Your task to perform on an android device: What's the latest news in cosmology? Image 0: 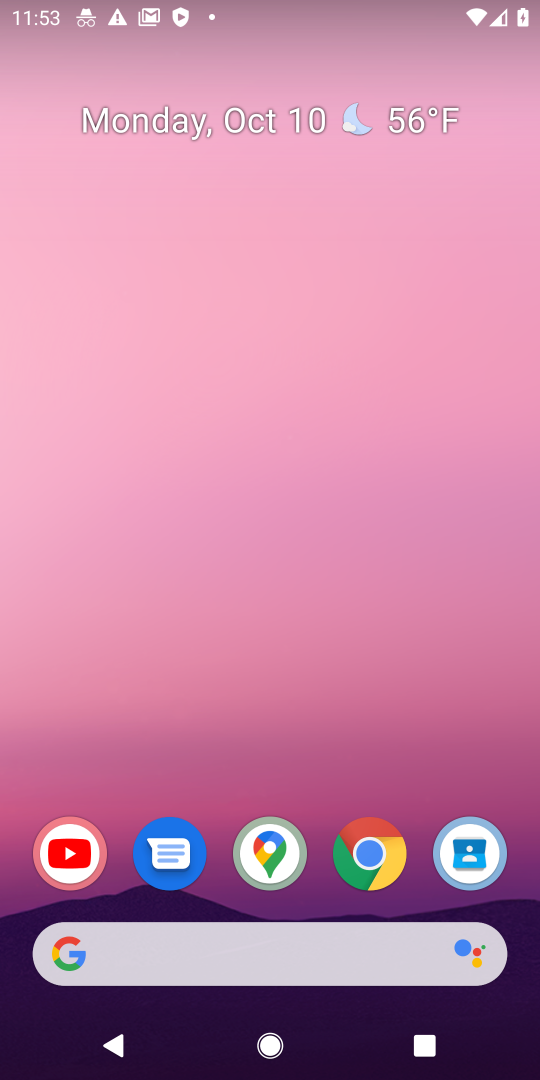
Step 0: click (149, 946)
Your task to perform on an android device: What's the latest news in cosmology? Image 1: 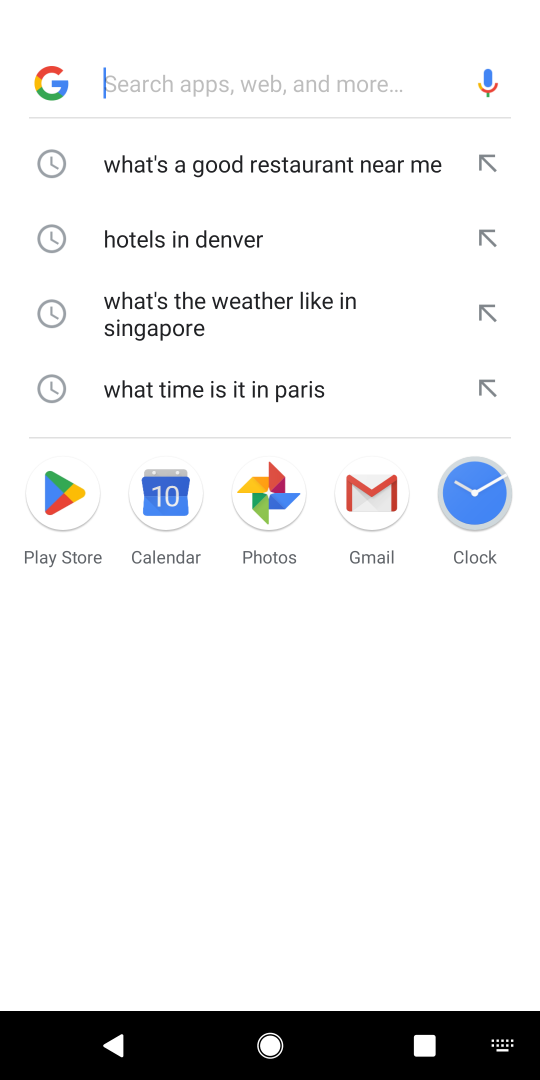
Step 1: type "What's the latest news in cosmology?"
Your task to perform on an android device: What's the latest news in cosmology? Image 2: 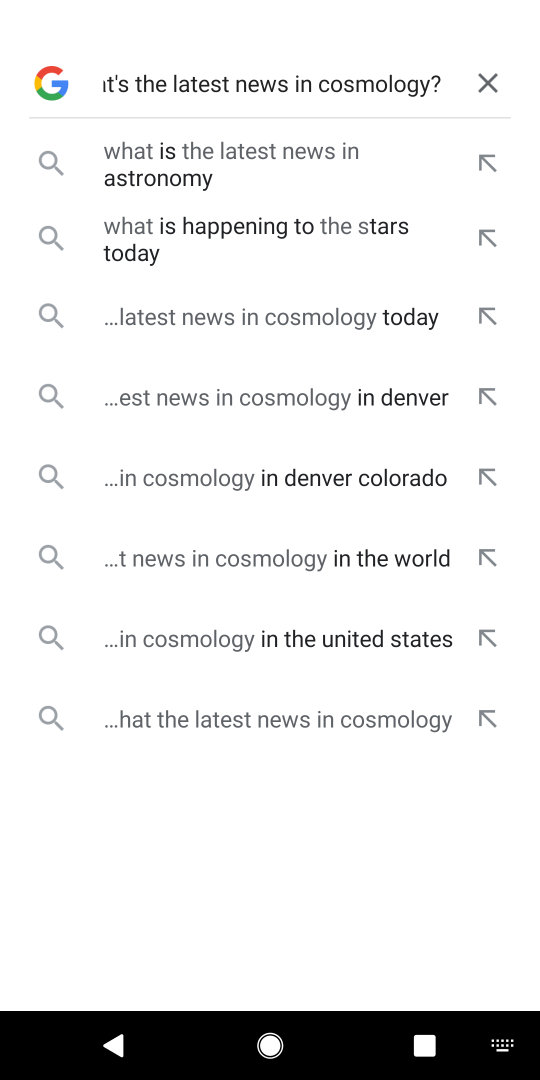
Step 2: press enter
Your task to perform on an android device: What's the latest news in cosmology? Image 3: 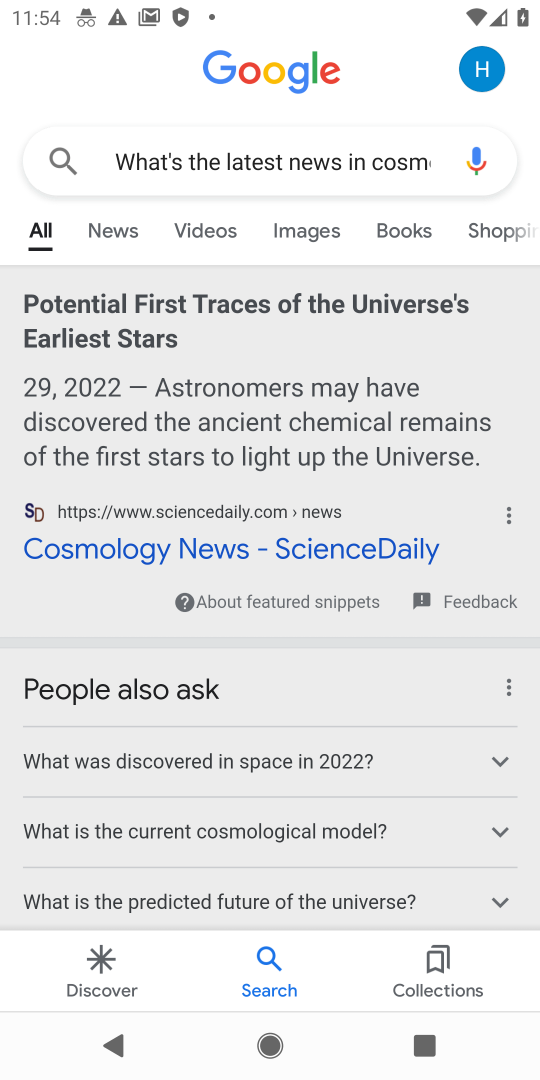
Step 3: click (178, 550)
Your task to perform on an android device: What's the latest news in cosmology? Image 4: 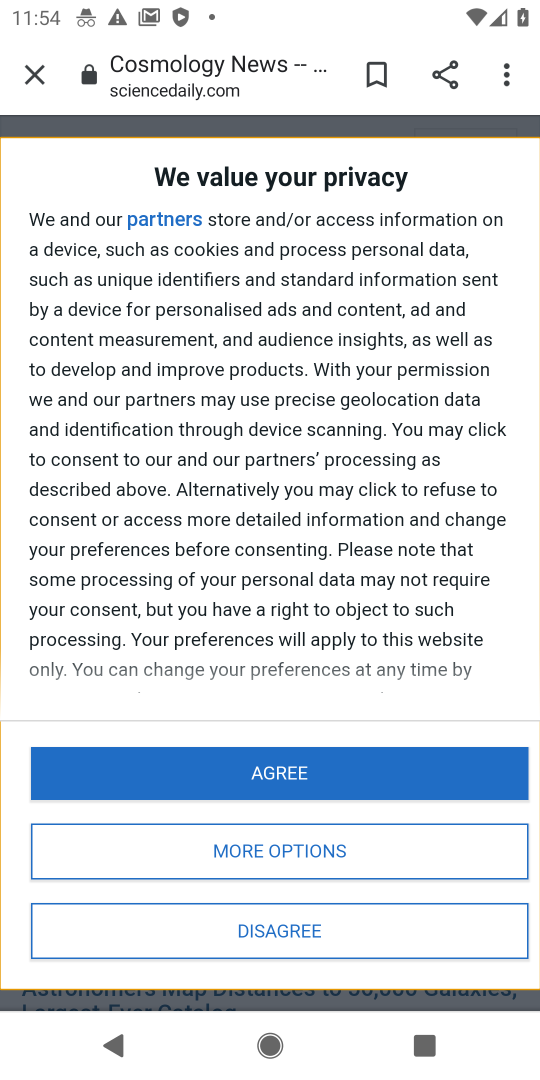
Step 4: click (365, 782)
Your task to perform on an android device: What's the latest news in cosmology? Image 5: 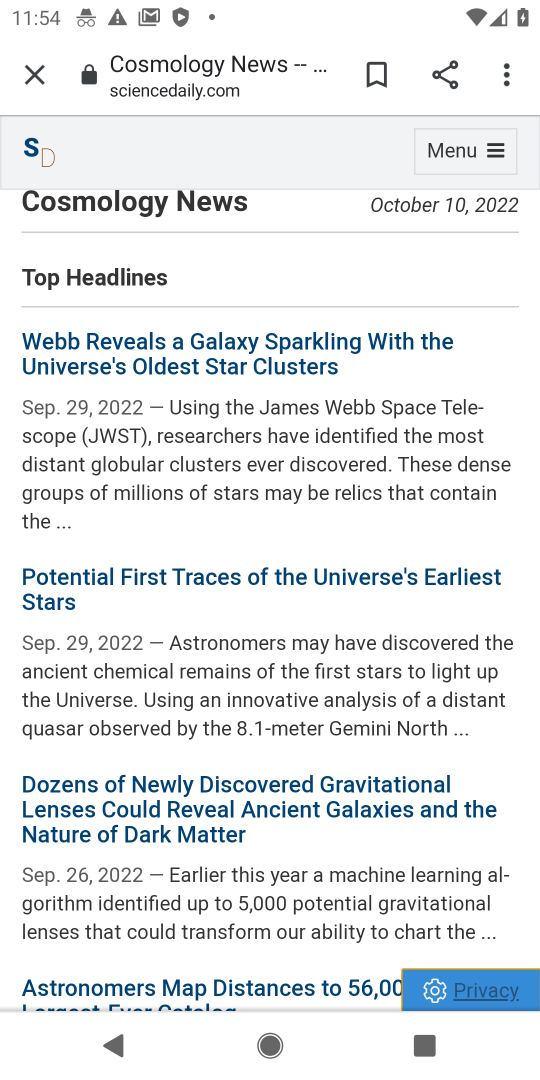
Step 5: task complete